Your task to perform on an android device: move a message to another label in the gmail app Image 0: 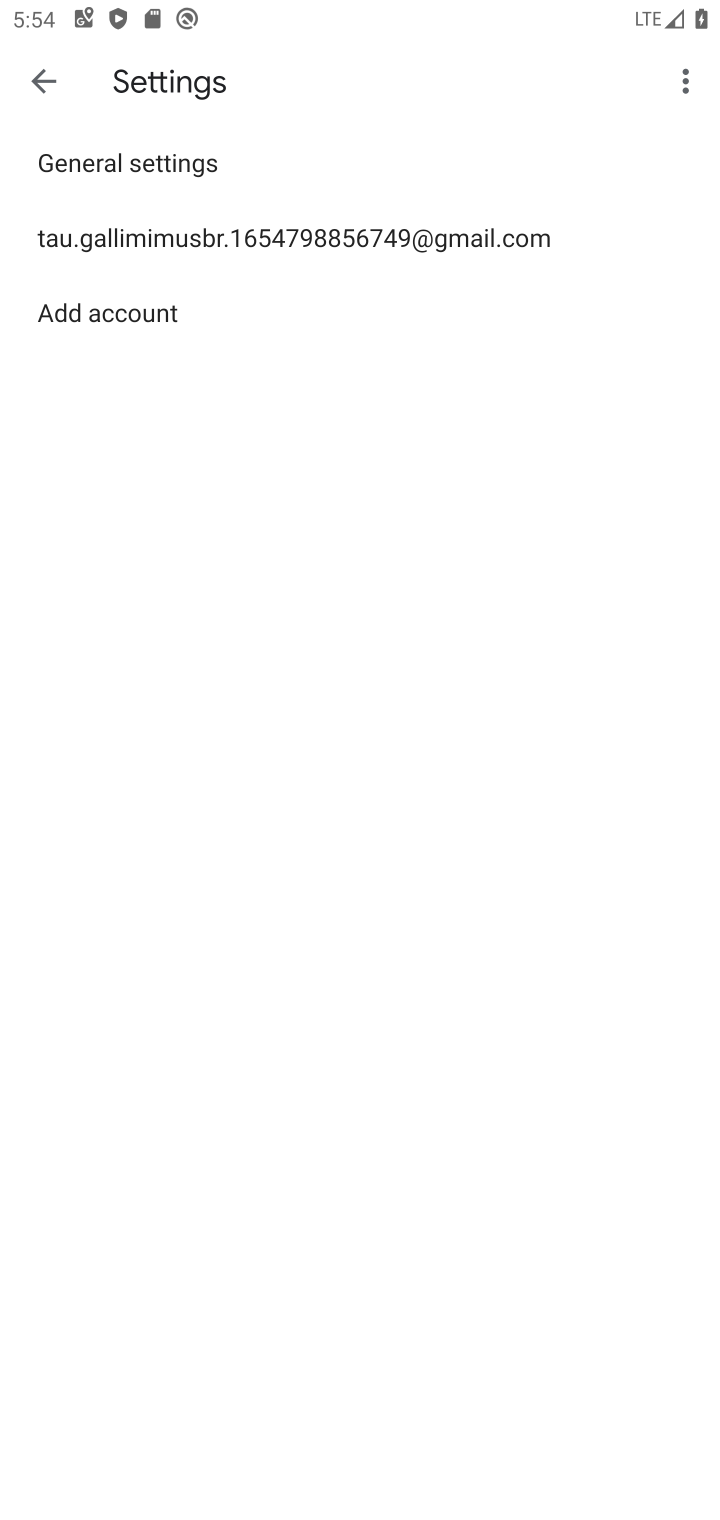
Step 0: press back button
Your task to perform on an android device: move a message to another label in the gmail app Image 1: 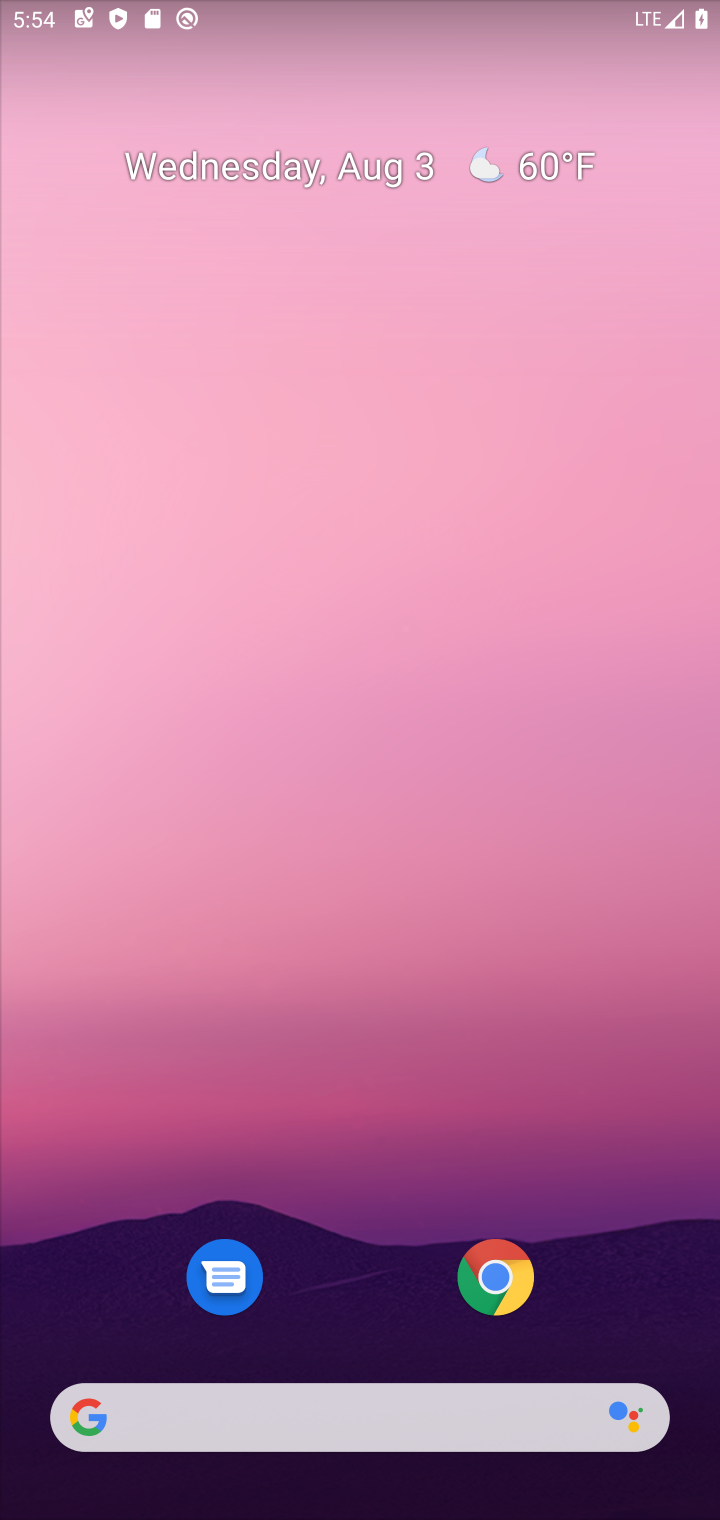
Step 1: drag from (252, 1260) to (349, 52)
Your task to perform on an android device: move a message to another label in the gmail app Image 2: 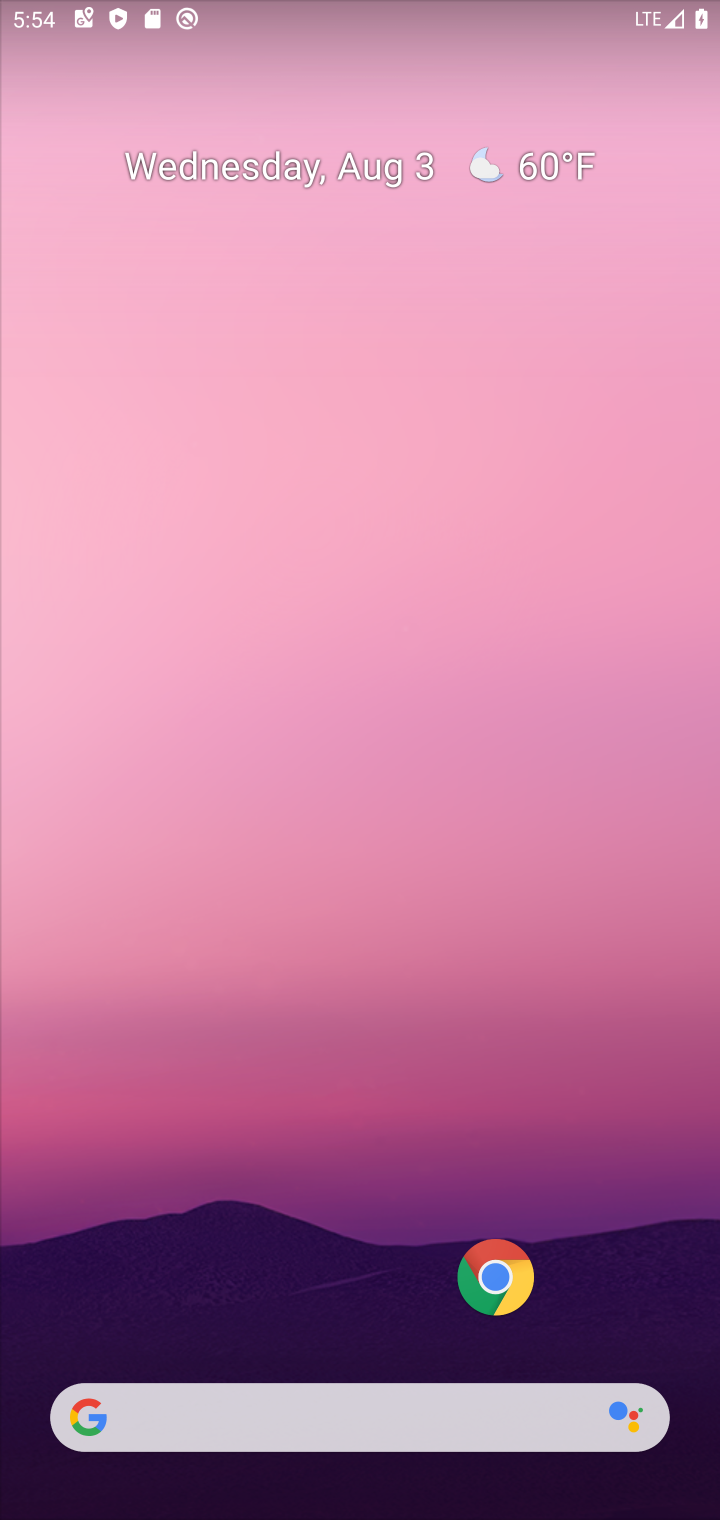
Step 2: drag from (283, 1065) to (398, 404)
Your task to perform on an android device: move a message to another label in the gmail app Image 3: 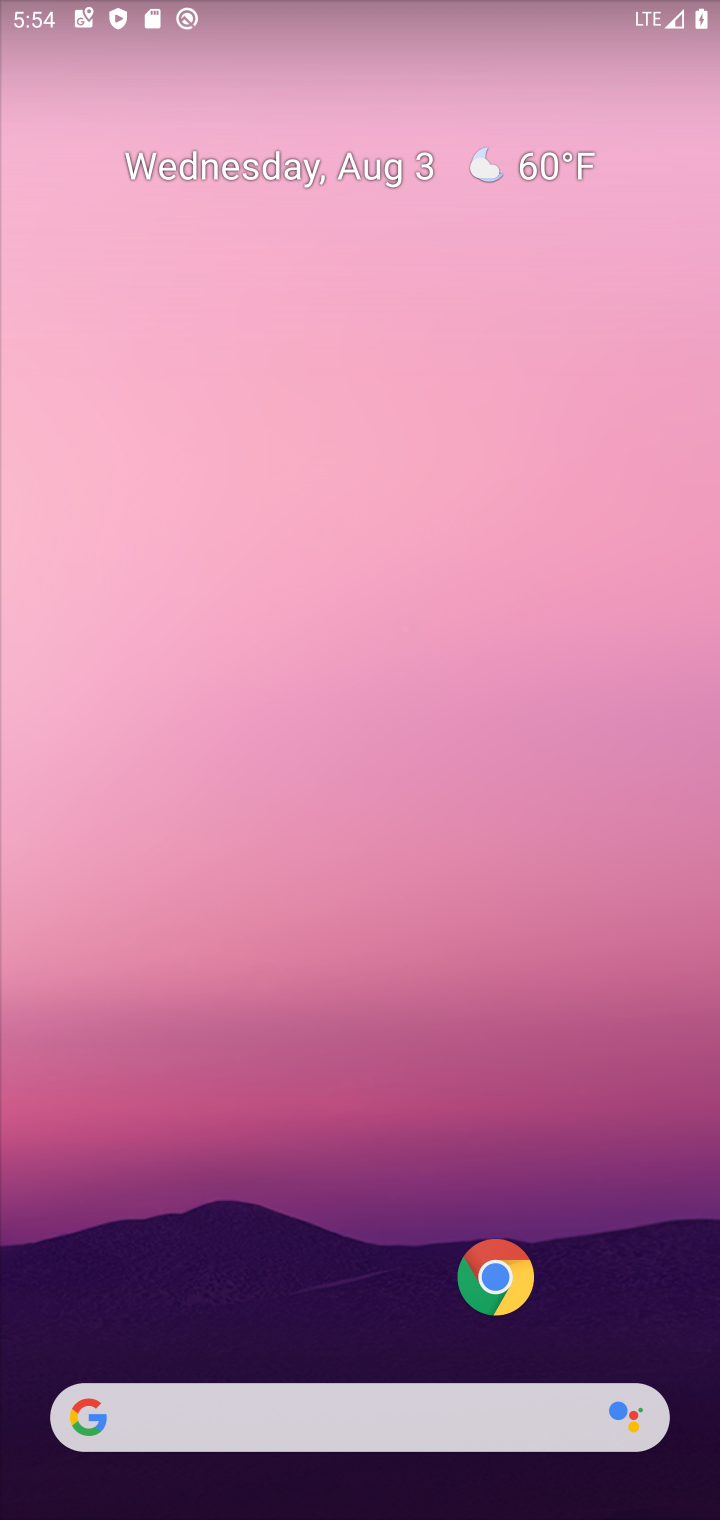
Step 3: drag from (208, 1355) to (521, 231)
Your task to perform on an android device: move a message to another label in the gmail app Image 4: 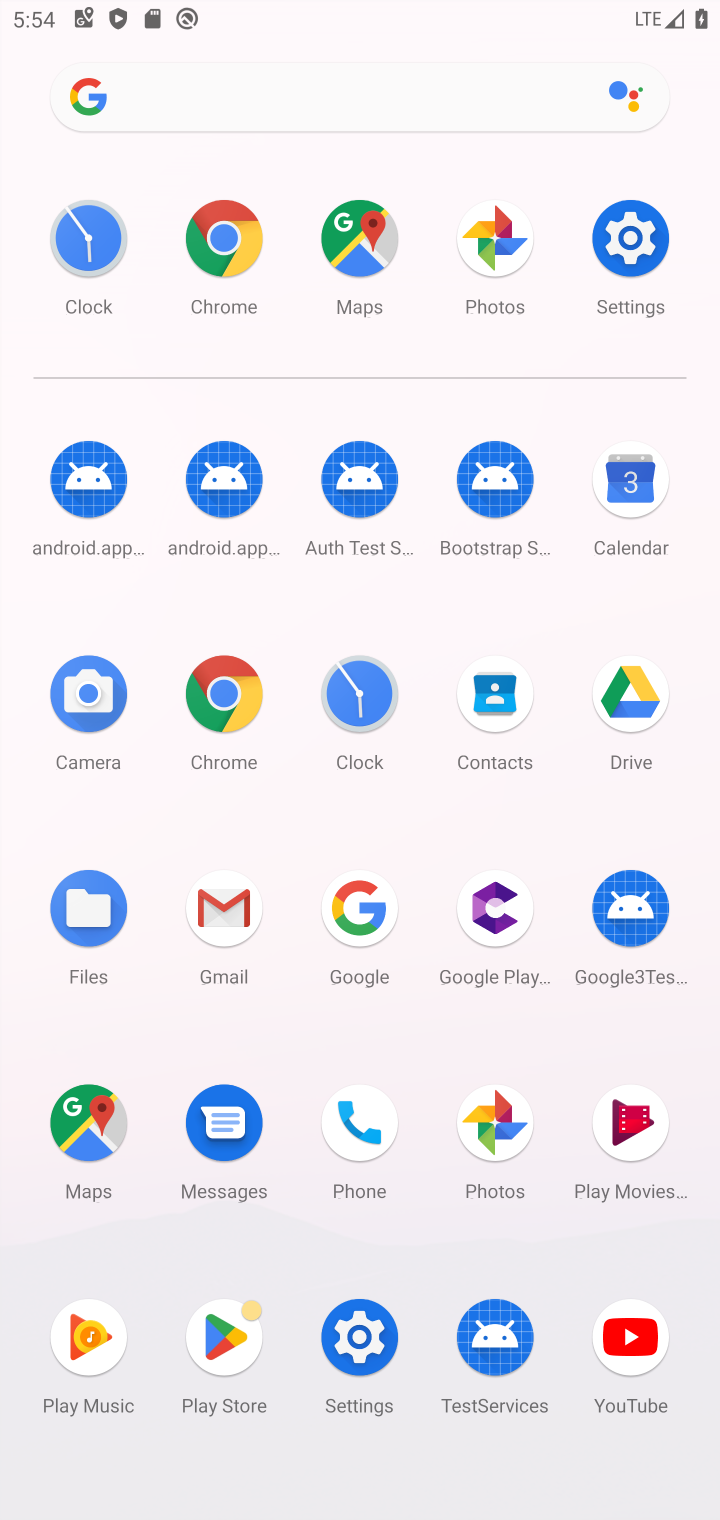
Step 4: click (230, 895)
Your task to perform on an android device: move a message to another label in the gmail app Image 5: 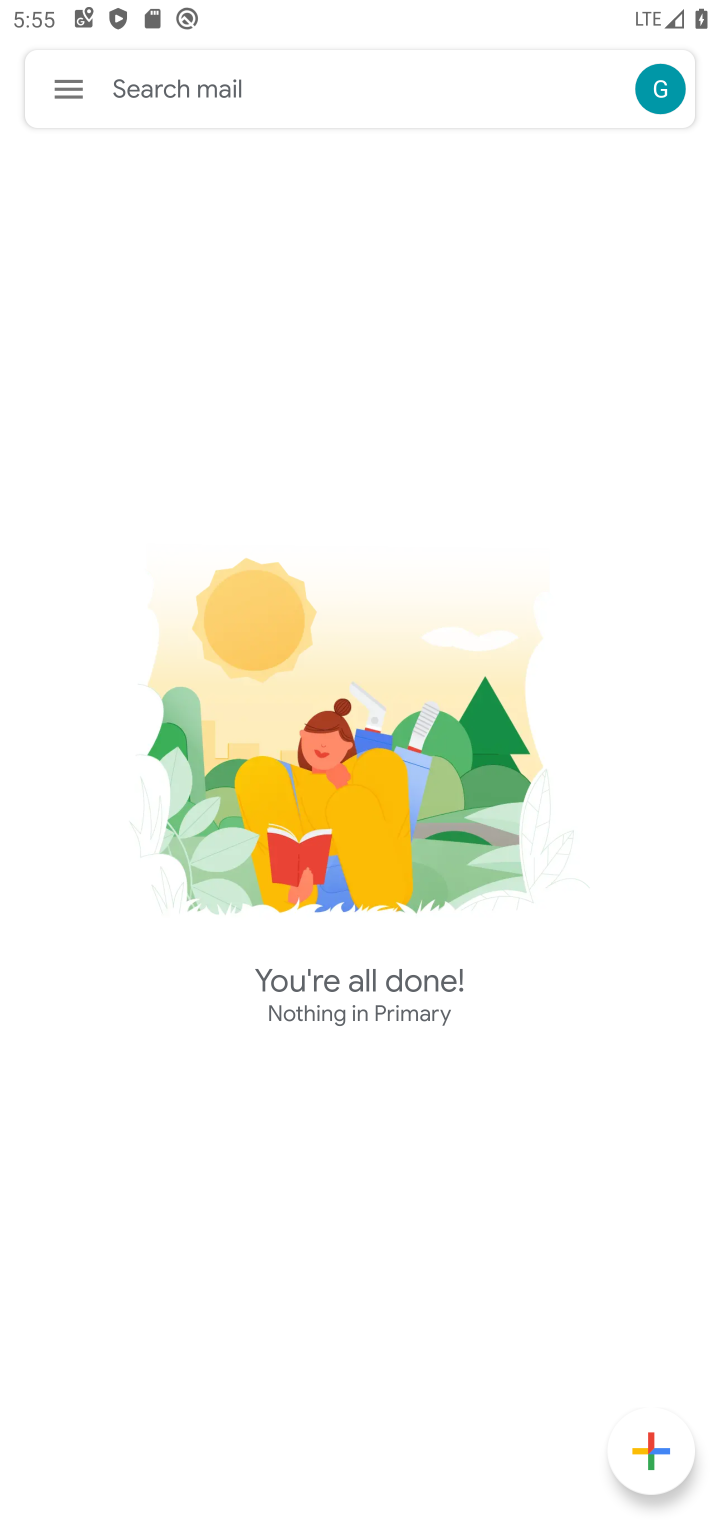
Step 5: click (74, 98)
Your task to perform on an android device: move a message to another label in the gmail app Image 6: 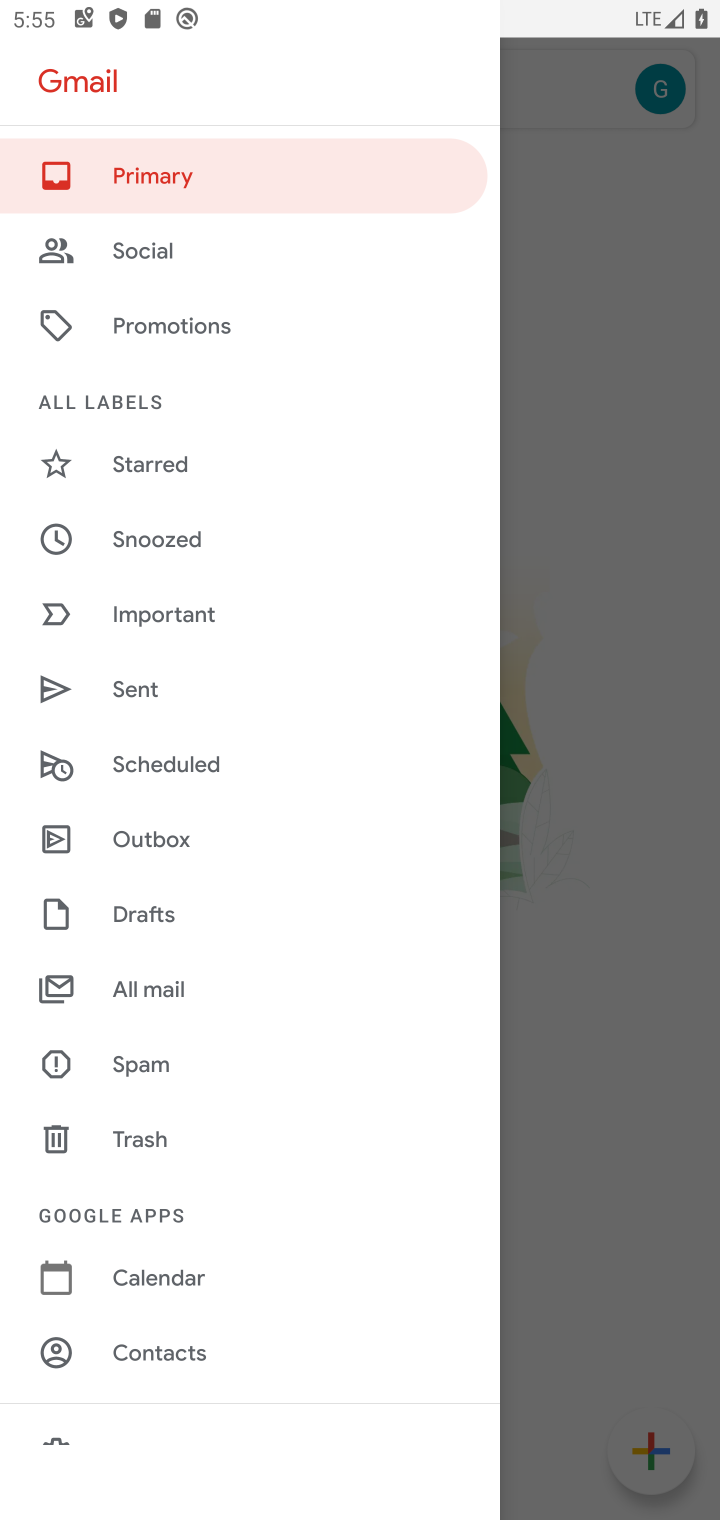
Step 6: click (175, 987)
Your task to perform on an android device: move a message to another label in the gmail app Image 7: 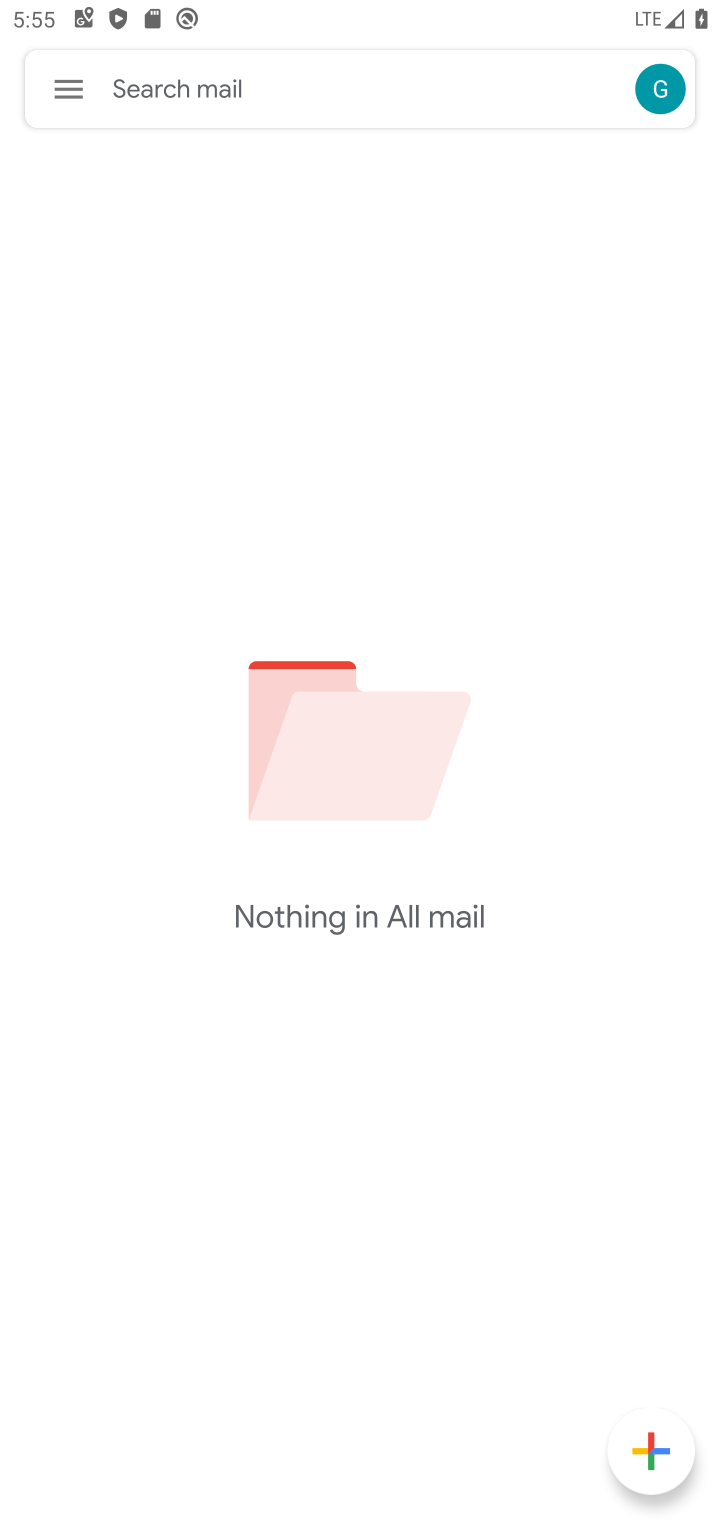
Step 7: task complete